Your task to perform on an android device: Go to Yahoo.com Image 0: 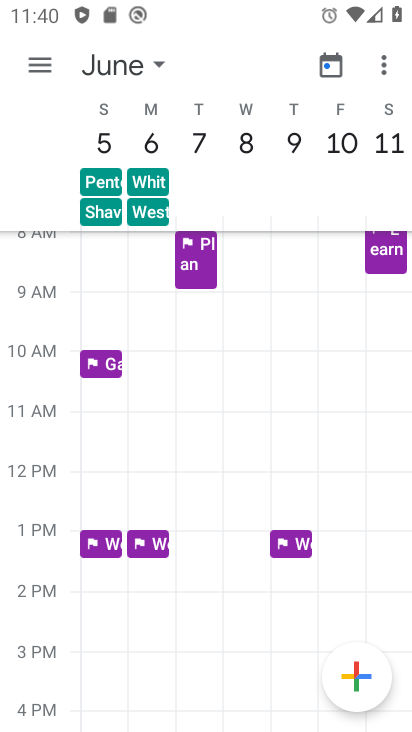
Step 0: press home button
Your task to perform on an android device: Go to Yahoo.com Image 1: 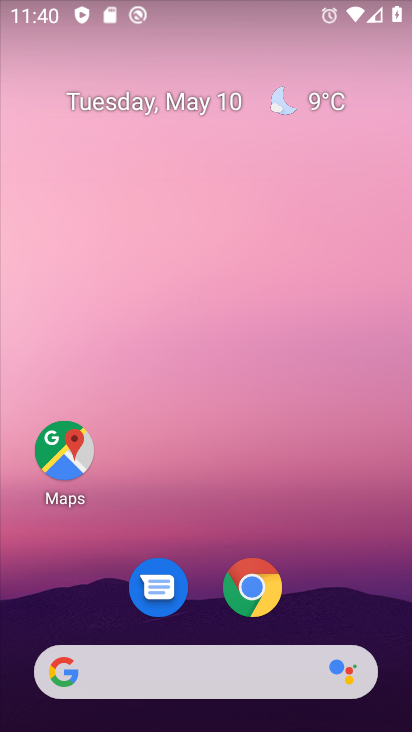
Step 1: click (245, 591)
Your task to perform on an android device: Go to Yahoo.com Image 2: 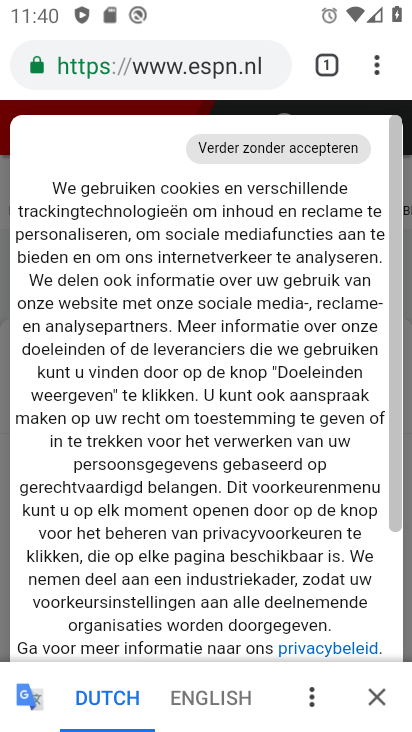
Step 2: click (152, 66)
Your task to perform on an android device: Go to Yahoo.com Image 3: 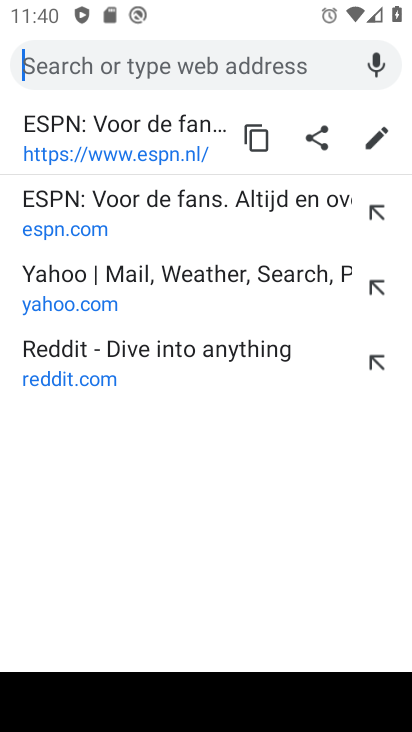
Step 3: click (76, 286)
Your task to perform on an android device: Go to Yahoo.com Image 4: 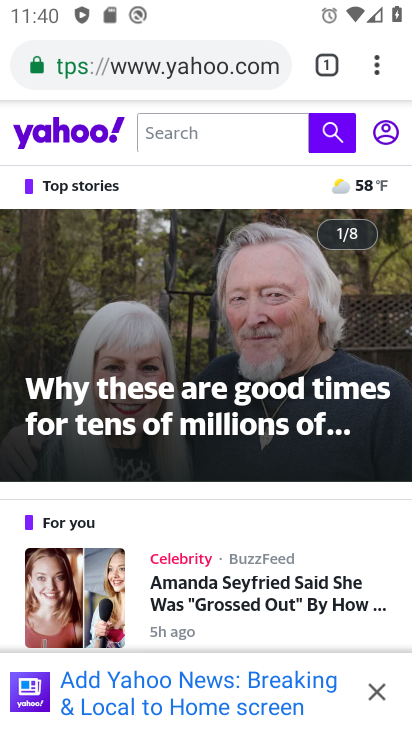
Step 4: task complete